Your task to perform on an android device: visit the assistant section in the google photos Image 0: 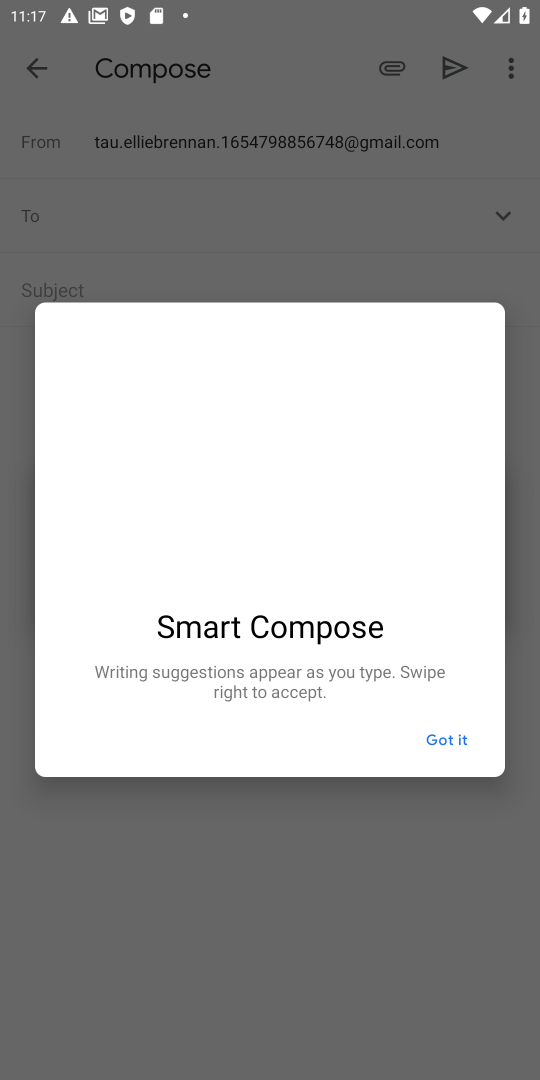
Step 0: press back button
Your task to perform on an android device: visit the assistant section in the google photos Image 1: 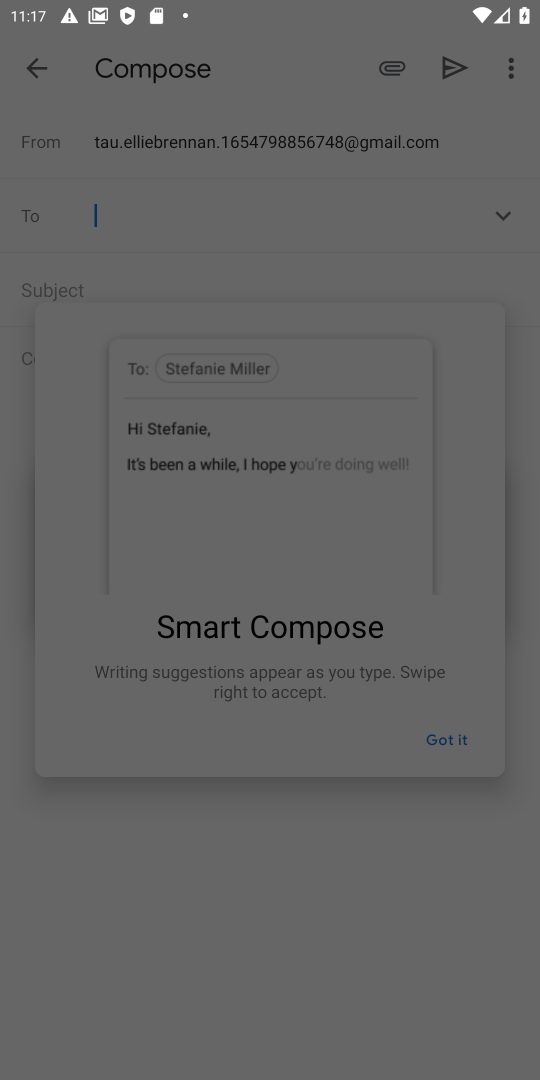
Step 1: press home button
Your task to perform on an android device: visit the assistant section in the google photos Image 2: 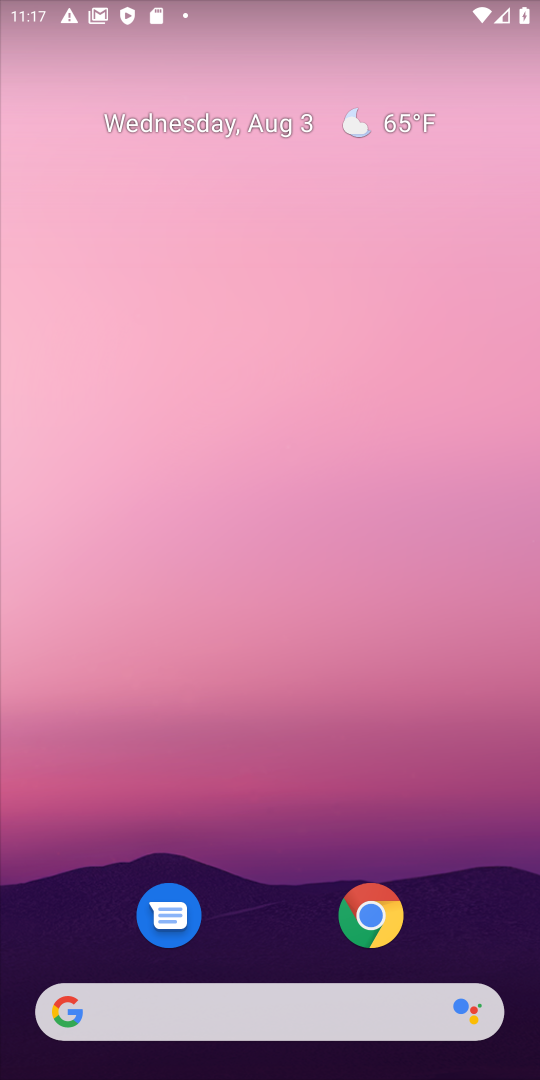
Step 2: drag from (226, 869) to (233, 154)
Your task to perform on an android device: visit the assistant section in the google photos Image 3: 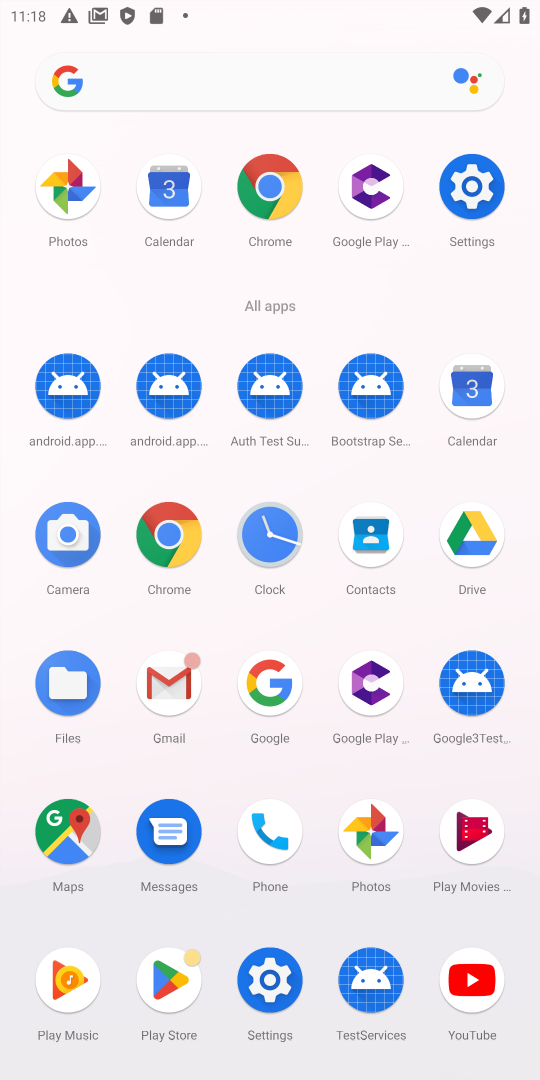
Step 3: click (362, 841)
Your task to perform on an android device: visit the assistant section in the google photos Image 4: 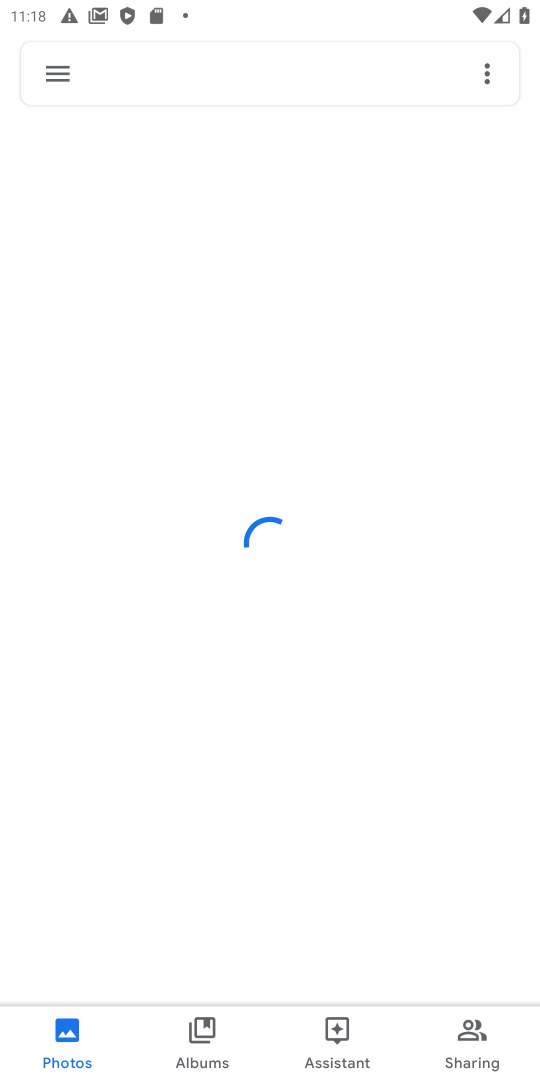
Step 4: click (333, 1061)
Your task to perform on an android device: visit the assistant section in the google photos Image 5: 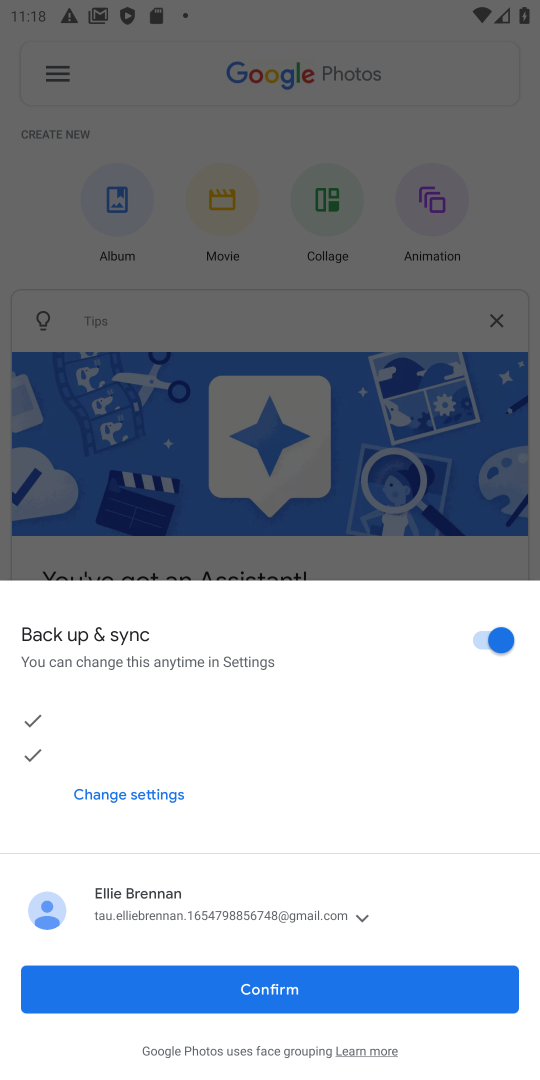
Step 5: click (336, 975)
Your task to perform on an android device: visit the assistant section in the google photos Image 6: 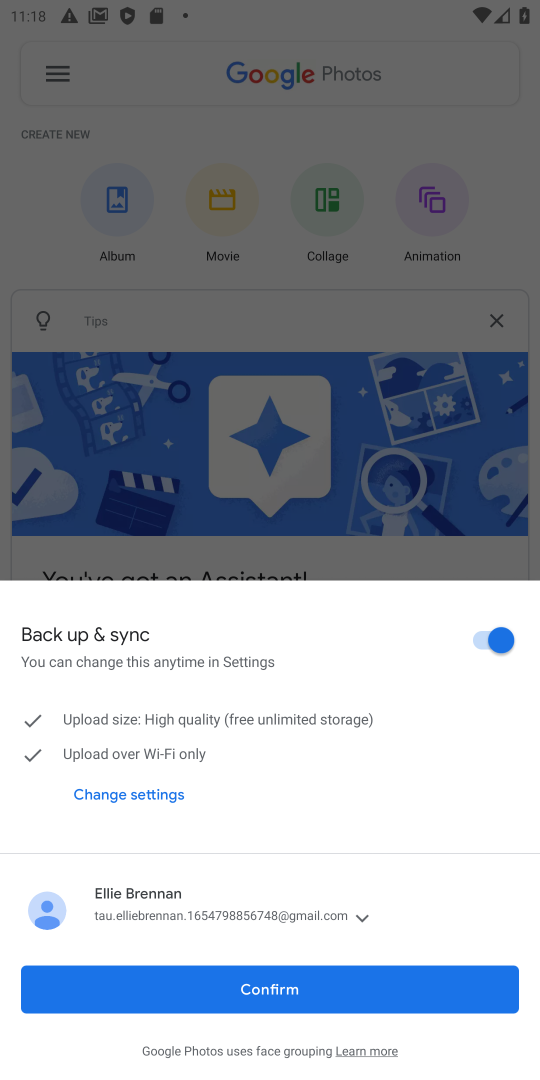
Step 6: click (268, 978)
Your task to perform on an android device: visit the assistant section in the google photos Image 7: 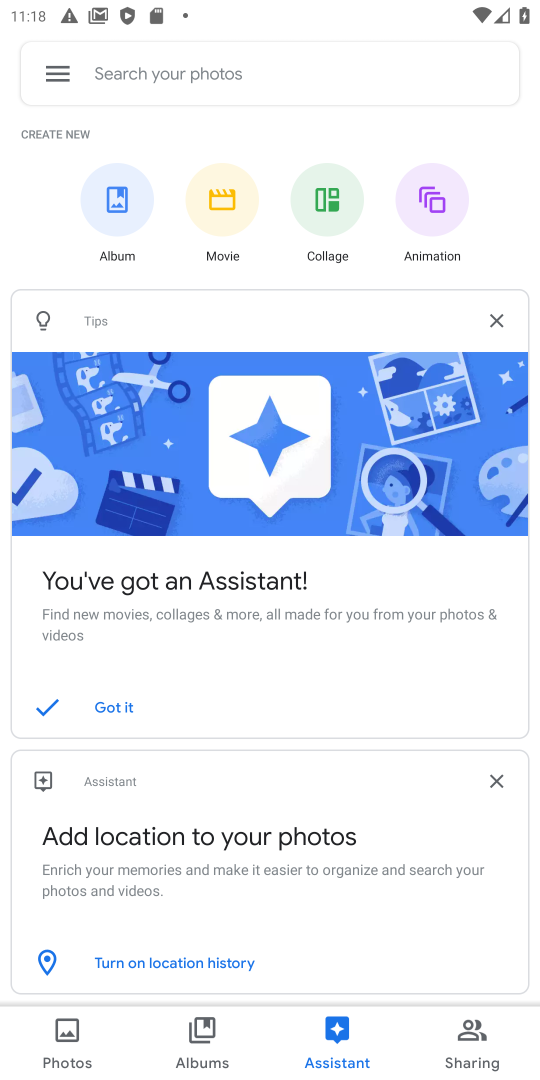
Step 7: task complete